Your task to perform on an android device: open a bookmark in the chrome app Image 0: 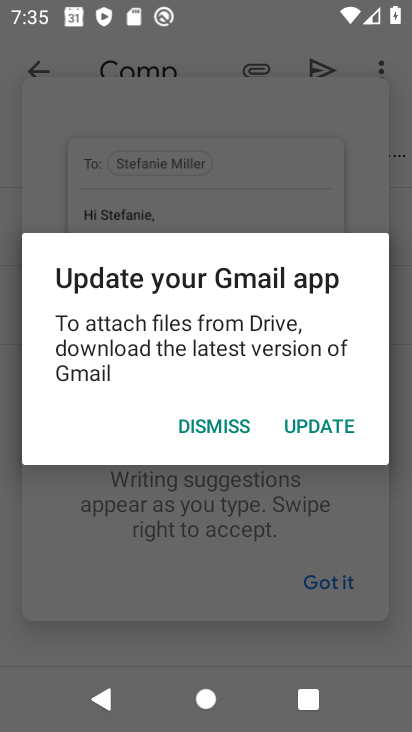
Step 0: press home button
Your task to perform on an android device: open a bookmark in the chrome app Image 1: 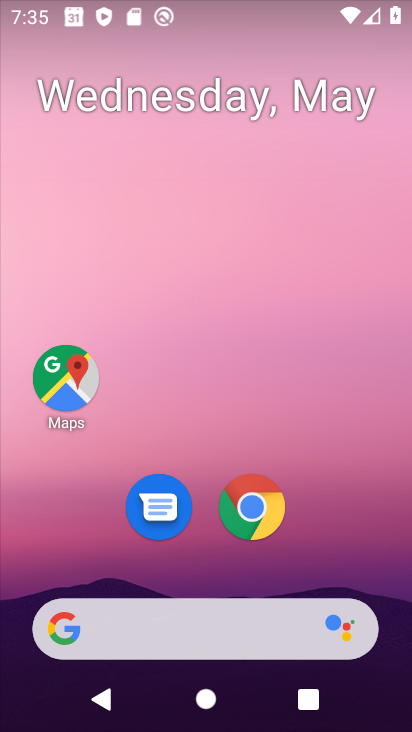
Step 1: click (262, 505)
Your task to perform on an android device: open a bookmark in the chrome app Image 2: 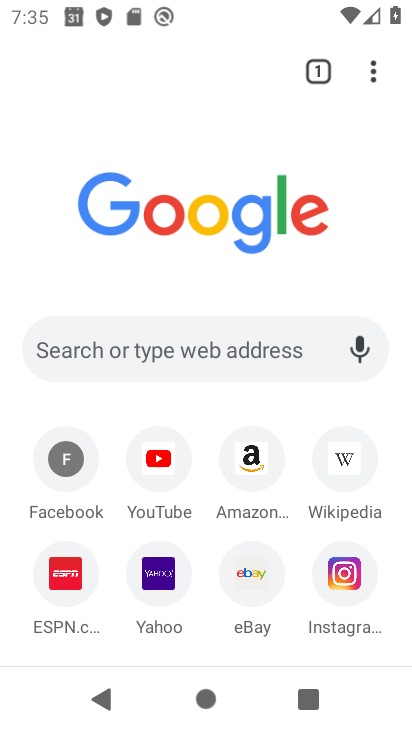
Step 2: click (379, 80)
Your task to perform on an android device: open a bookmark in the chrome app Image 3: 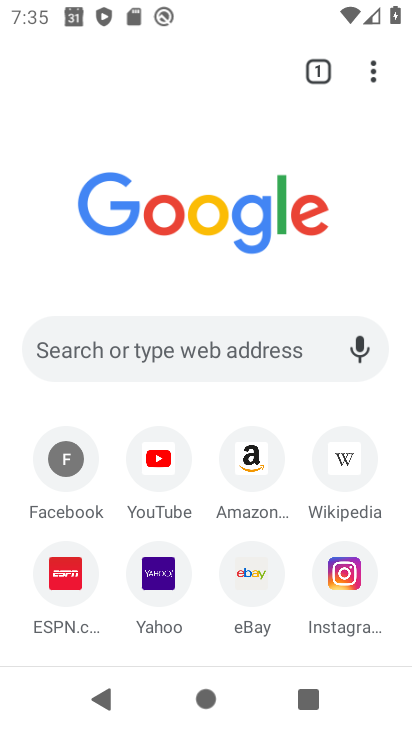
Step 3: click (375, 66)
Your task to perform on an android device: open a bookmark in the chrome app Image 4: 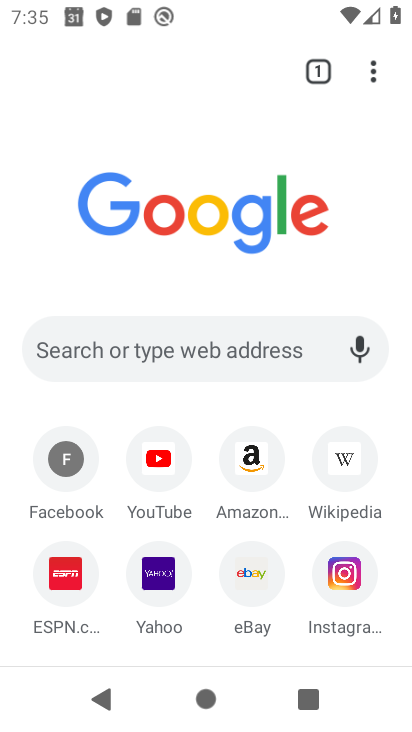
Step 4: click (375, 66)
Your task to perform on an android device: open a bookmark in the chrome app Image 5: 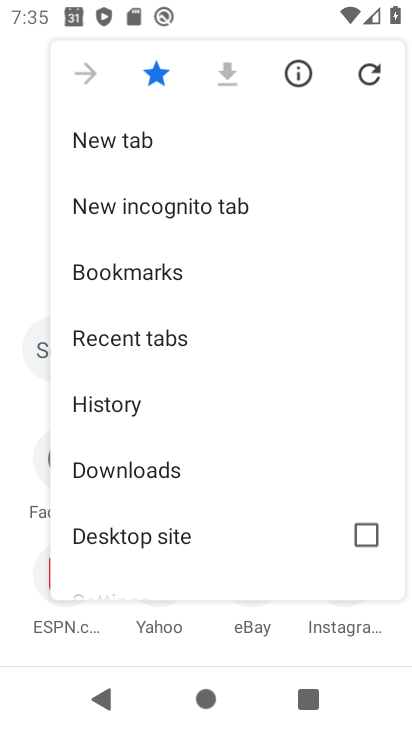
Step 5: click (143, 267)
Your task to perform on an android device: open a bookmark in the chrome app Image 6: 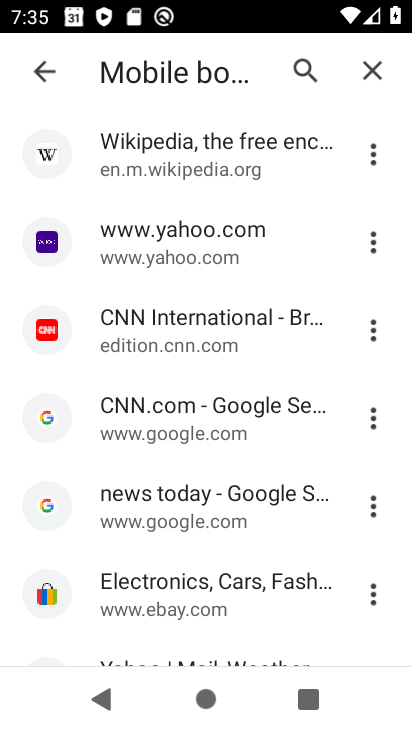
Step 6: task complete